Your task to perform on an android device: Open location settings Image 0: 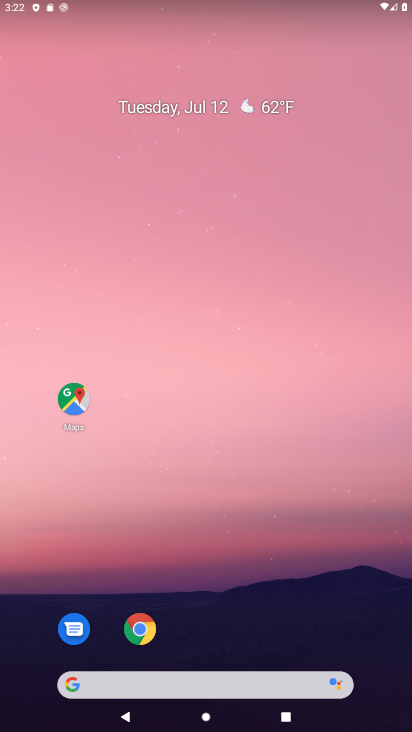
Step 0: drag from (207, 652) to (207, 112)
Your task to perform on an android device: Open location settings Image 1: 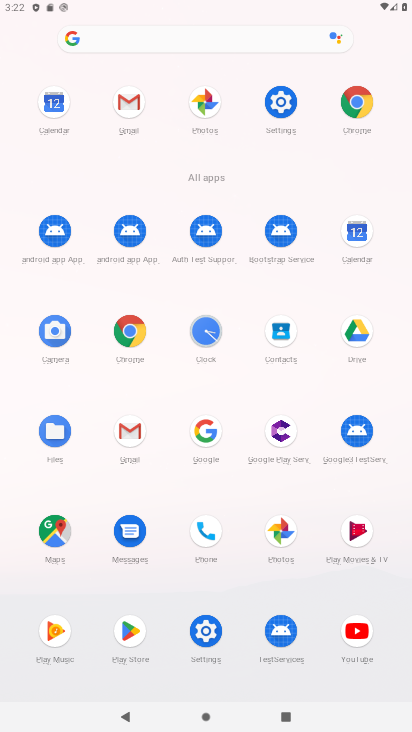
Step 1: click (205, 620)
Your task to perform on an android device: Open location settings Image 2: 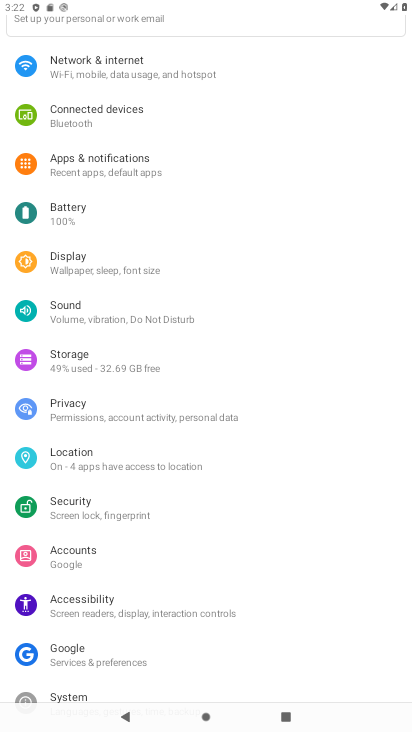
Step 2: click (73, 457)
Your task to perform on an android device: Open location settings Image 3: 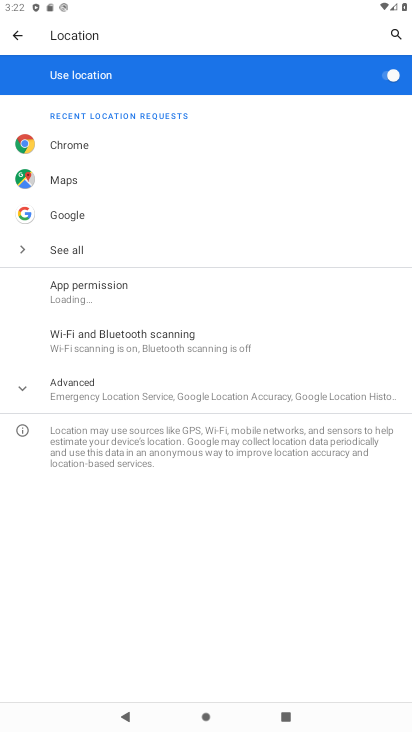
Step 3: click (139, 379)
Your task to perform on an android device: Open location settings Image 4: 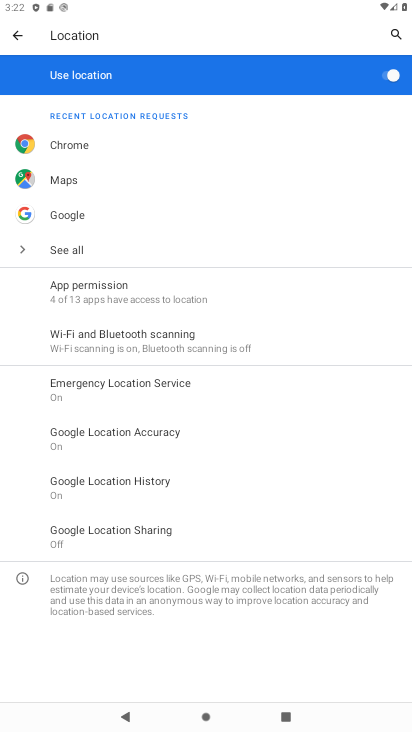
Step 4: task complete